Your task to perform on an android device: Go to CNN.com Image 0: 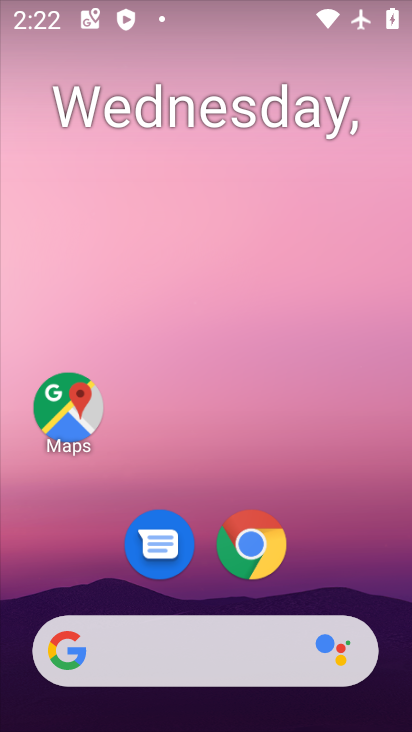
Step 0: click (255, 540)
Your task to perform on an android device: Go to CNN.com Image 1: 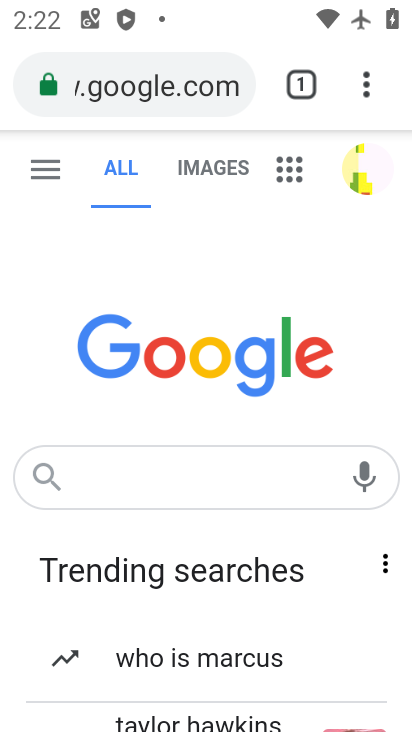
Step 1: click (155, 73)
Your task to perform on an android device: Go to CNN.com Image 2: 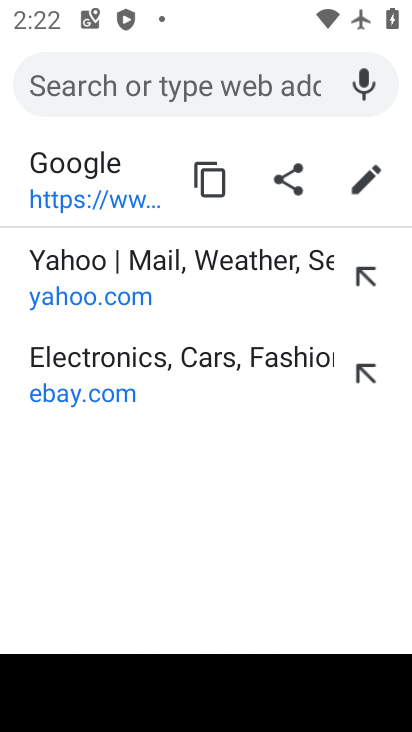
Step 2: type "cnn.com"
Your task to perform on an android device: Go to CNN.com Image 3: 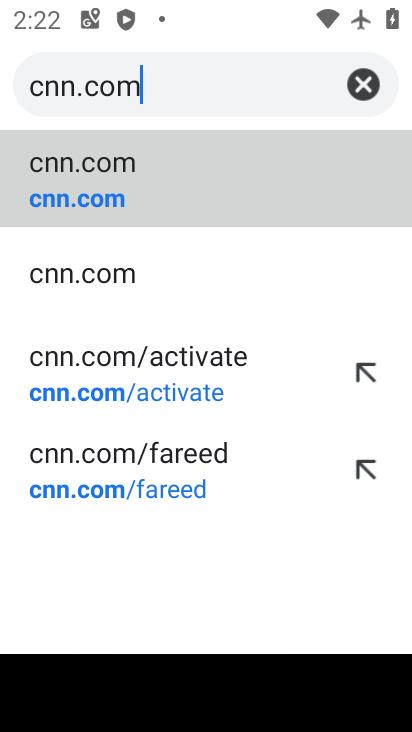
Step 3: click (155, 176)
Your task to perform on an android device: Go to CNN.com Image 4: 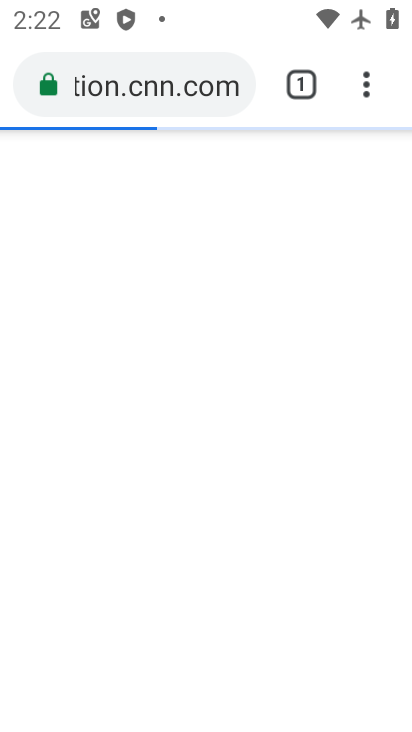
Step 4: task complete